Your task to perform on an android device: Open calendar and show me the first week of next month Image 0: 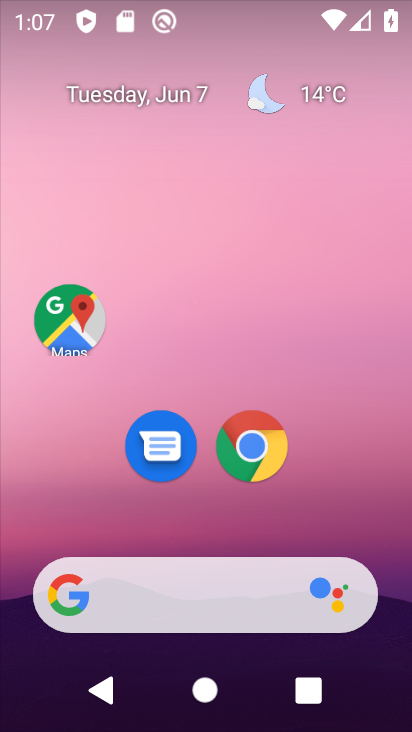
Step 0: drag from (277, 446) to (216, 6)
Your task to perform on an android device: Open calendar and show me the first week of next month Image 1: 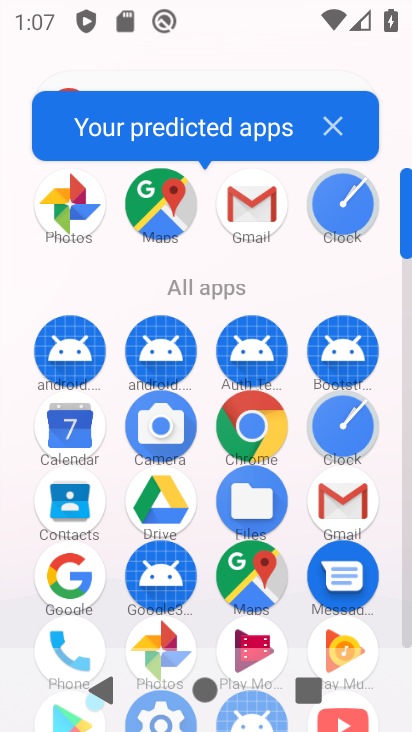
Step 1: click (63, 430)
Your task to perform on an android device: Open calendar and show me the first week of next month Image 2: 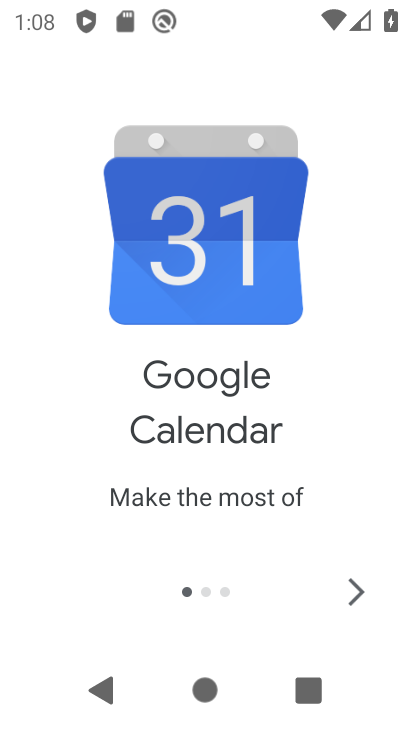
Step 2: click (355, 582)
Your task to perform on an android device: Open calendar and show me the first week of next month Image 3: 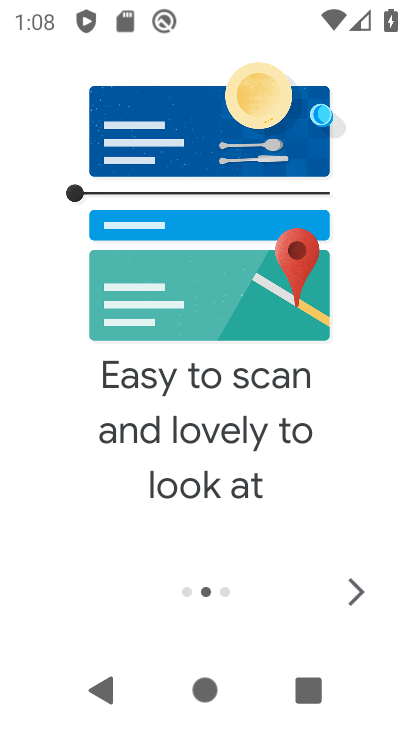
Step 3: click (355, 582)
Your task to perform on an android device: Open calendar and show me the first week of next month Image 4: 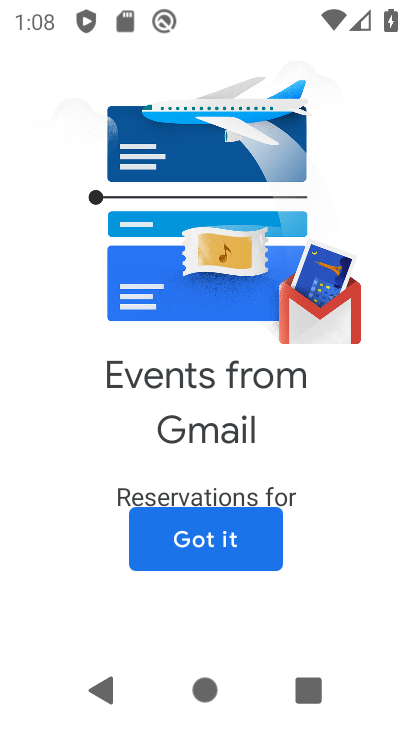
Step 4: click (221, 537)
Your task to perform on an android device: Open calendar and show me the first week of next month Image 5: 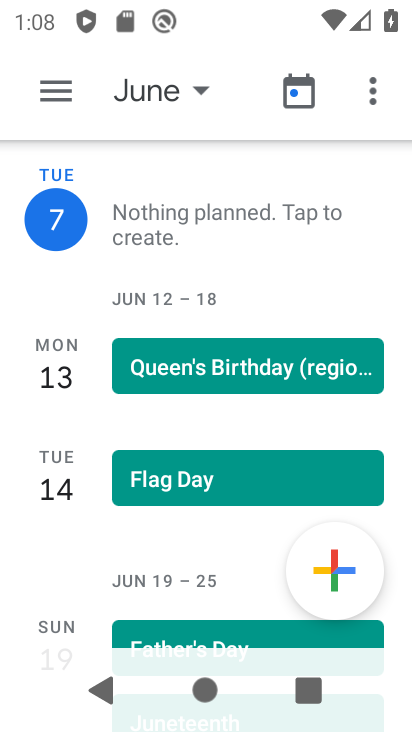
Step 5: click (141, 71)
Your task to perform on an android device: Open calendar and show me the first week of next month Image 6: 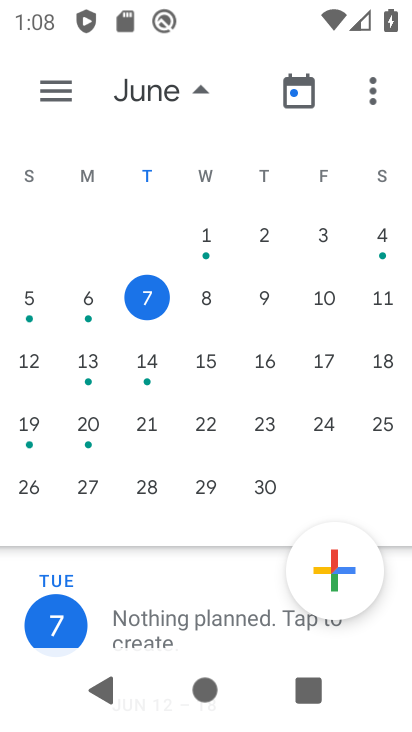
Step 6: drag from (306, 297) to (35, 291)
Your task to perform on an android device: Open calendar and show me the first week of next month Image 7: 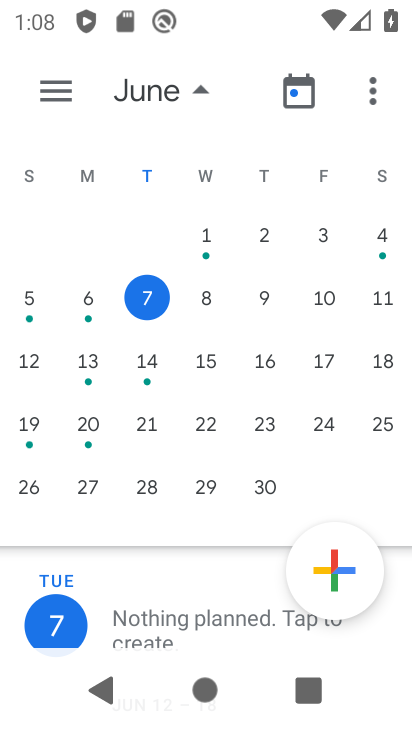
Step 7: drag from (97, 320) to (3, 273)
Your task to perform on an android device: Open calendar and show me the first week of next month Image 8: 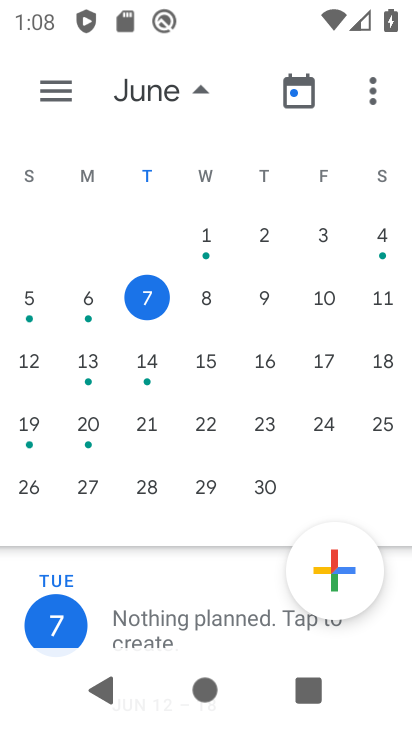
Step 8: drag from (345, 267) to (19, 335)
Your task to perform on an android device: Open calendar and show me the first week of next month Image 9: 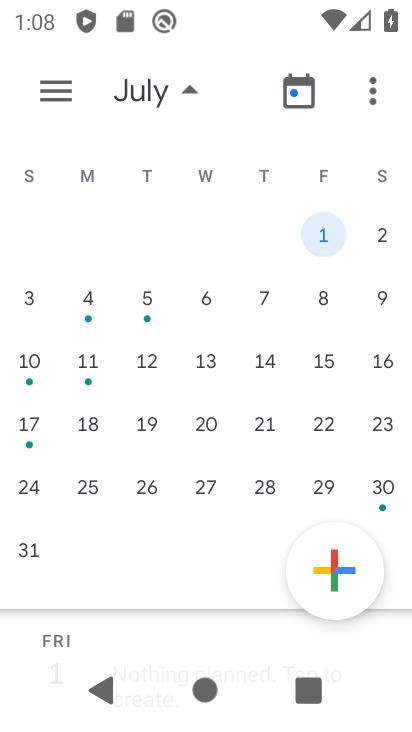
Step 9: click (323, 237)
Your task to perform on an android device: Open calendar and show me the first week of next month Image 10: 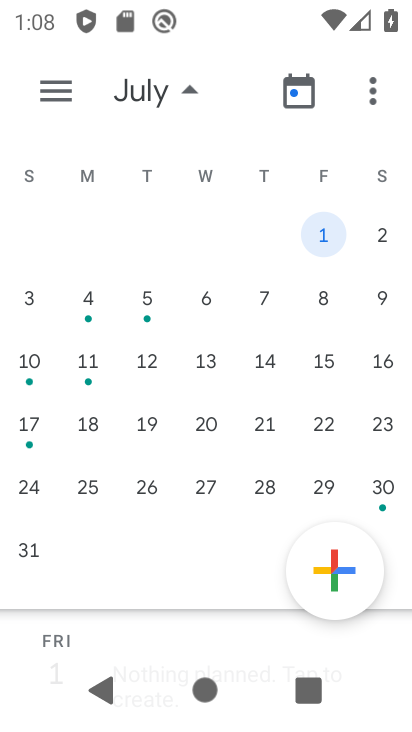
Step 10: task complete